Your task to perform on an android device: Search for sushi restaurants on Maps Image 0: 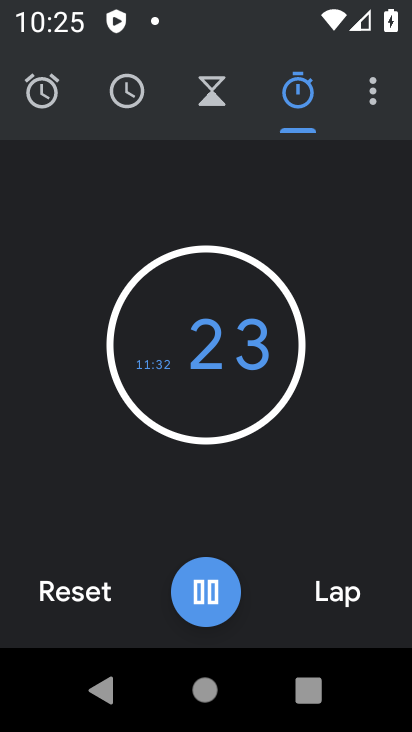
Step 0: press back button
Your task to perform on an android device: Search for sushi restaurants on Maps Image 1: 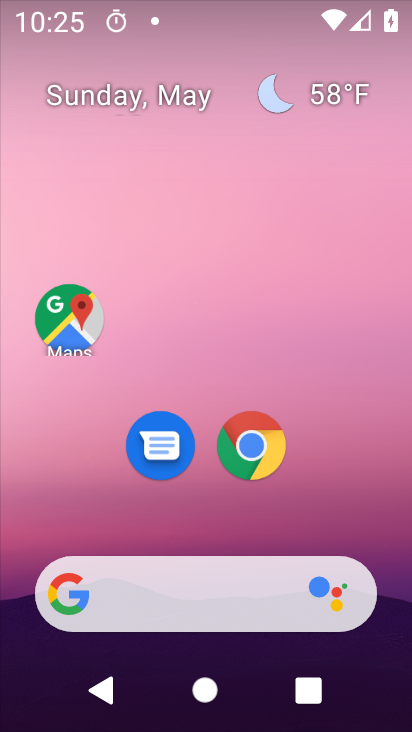
Step 1: drag from (318, 530) to (281, 3)
Your task to perform on an android device: Search for sushi restaurants on Maps Image 2: 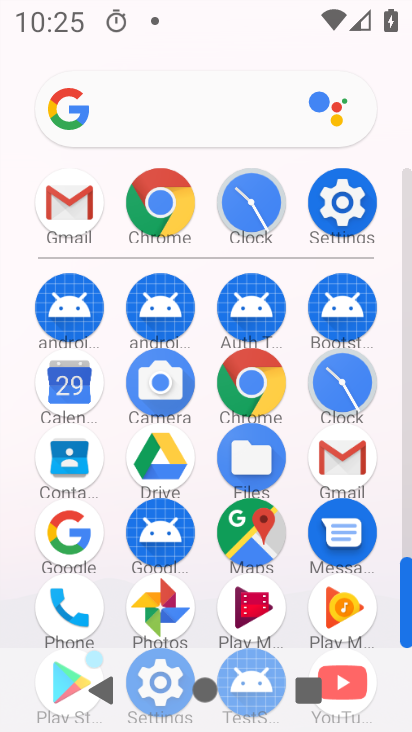
Step 2: click (251, 527)
Your task to perform on an android device: Search for sushi restaurants on Maps Image 3: 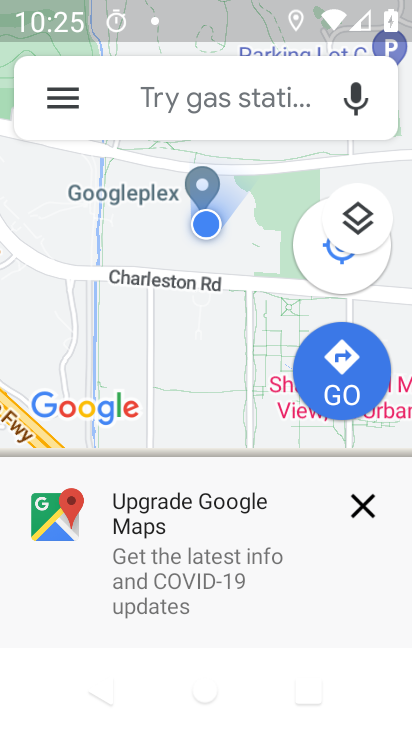
Step 3: click (132, 91)
Your task to perform on an android device: Search for sushi restaurants on Maps Image 4: 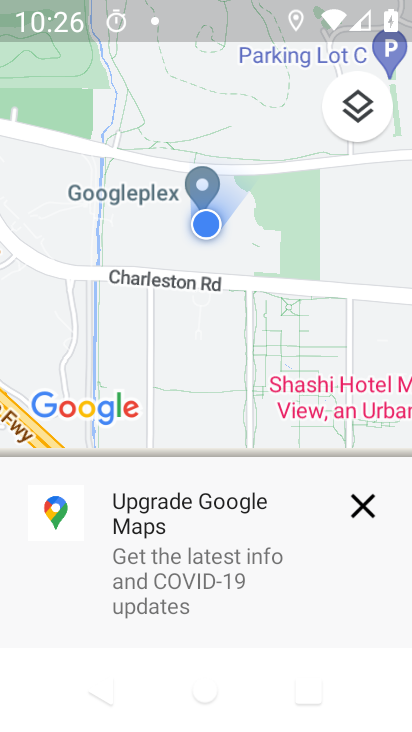
Step 4: click (359, 495)
Your task to perform on an android device: Search for sushi restaurants on Maps Image 5: 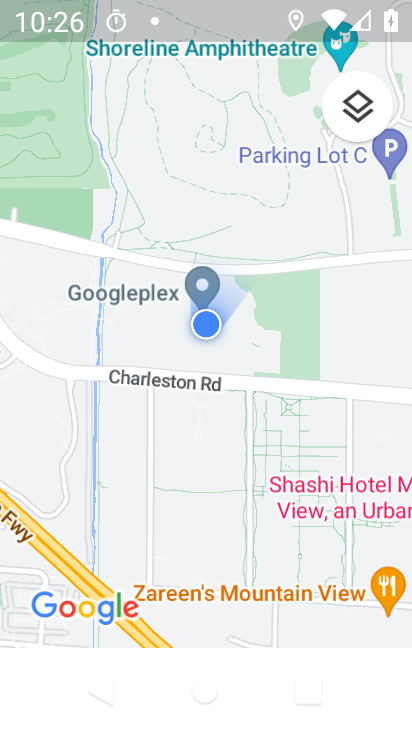
Step 5: click (220, 249)
Your task to perform on an android device: Search for sushi restaurants on Maps Image 6: 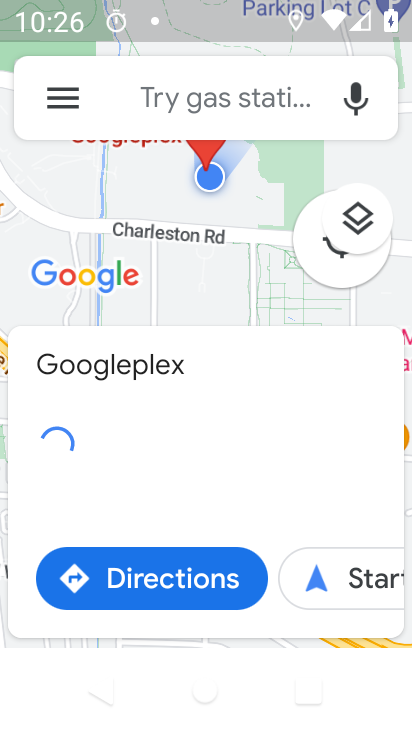
Step 6: click (142, 102)
Your task to perform on an android device: Search for sushi restaurants on Maps Image 7: 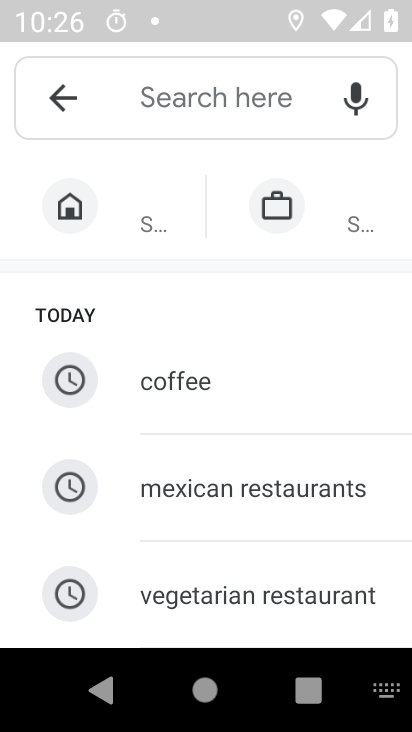
Step 7: drag from (271, 588) to (275, 351)
Your task to perform on an android device: Search for sushi restaurants on Maps Image 8: 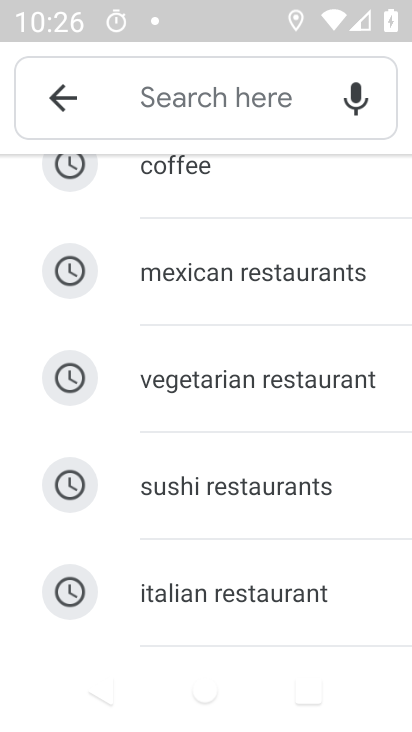
Step 8: click (244, 461)
Your task to perform on an android device: Search for sushi restaurants on Maps Image 9: 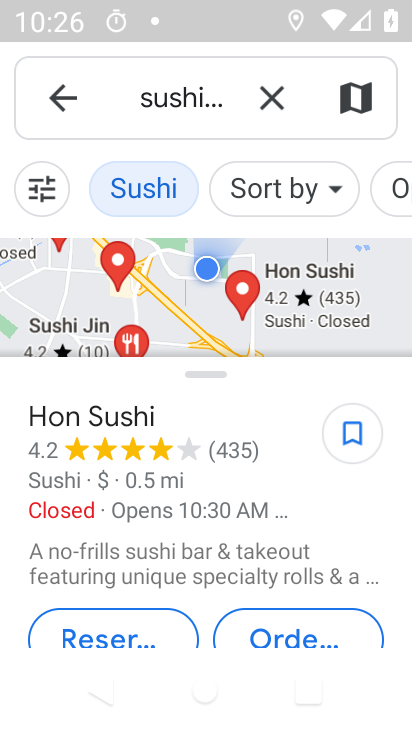
Step 9: task complete